Your task to perform on an android device: turn on notifications settings in the gmail app Image 0: 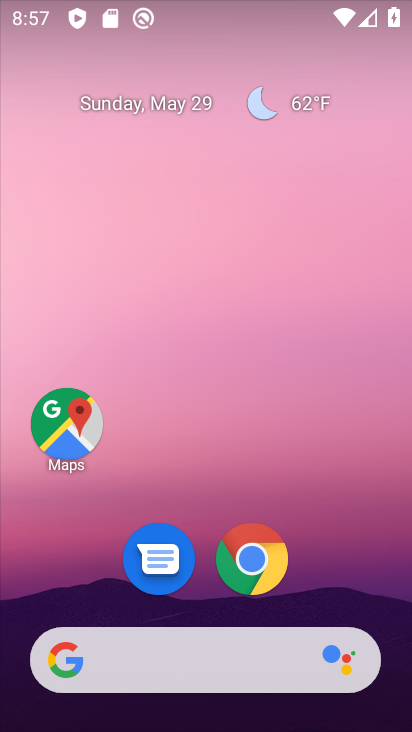
Step 0: drag from (328, 360) to (345, 133)
Your task to perform on an android device: turn on notifications settings in the gmail app Image 1: 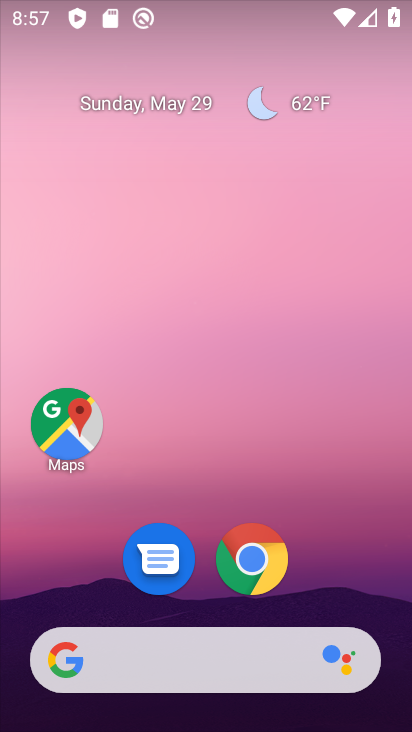
Step 1: drag from (308, 622) to (293, 195)
Your task to perform on an android device: turn on notifications settings in the gmail app Image 2: 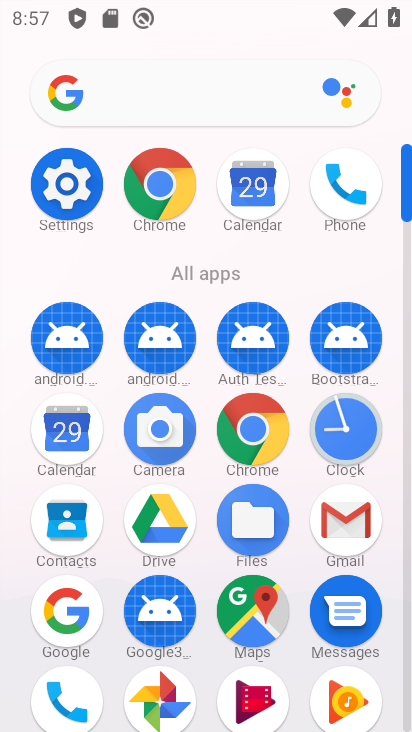
Step 2: click (336, 522)
Your task to perform on an android device: turn on notifications settings in the gmail app Image 3: 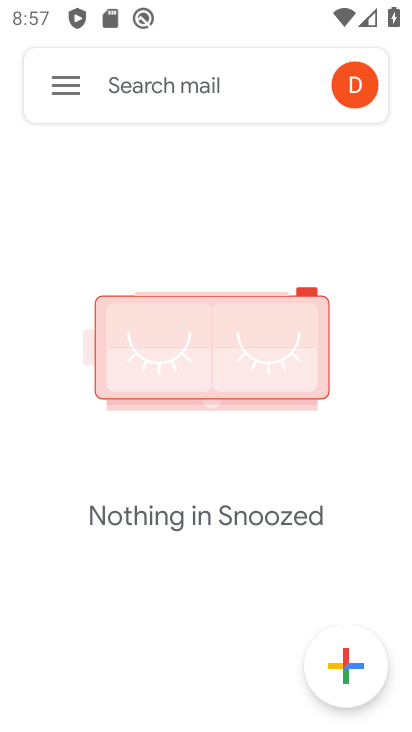
Step 3: click (62, 84)
Your task to perform on an android device: turn on notifications settings in the gmail app Image 4: 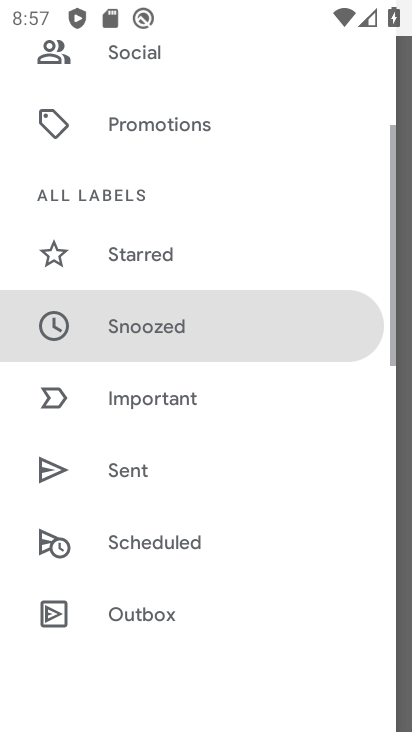
Step 4: drag from (189, 581) to (221, 174)
Your task to perform on an android device: turn on notifications settings in the gmail app Image 5: 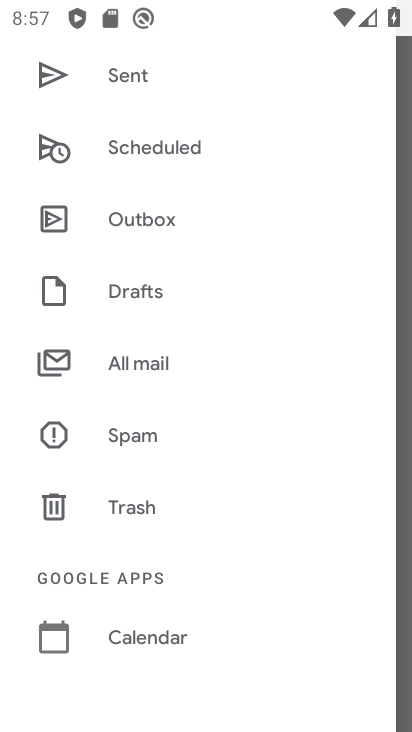
Step 5: drag from (199, 561) to (246, 253)
Your task to perform on an android device: turn on notifications settings in the gmail app Image 6: 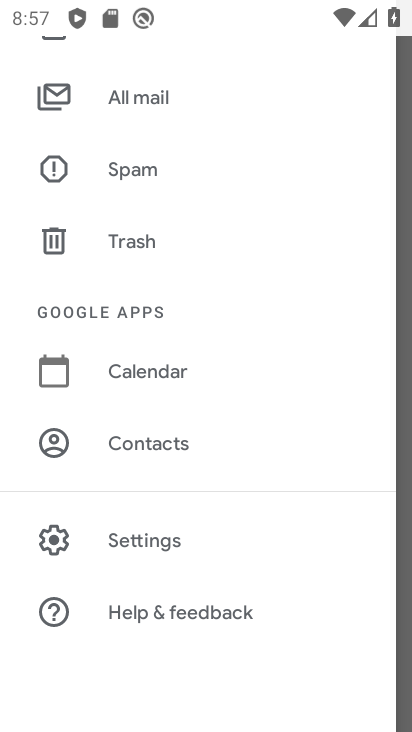
Step 6: click (180, 534)
Your task to perform on an android device: turn on notifications settings in the gmail app Image 7: 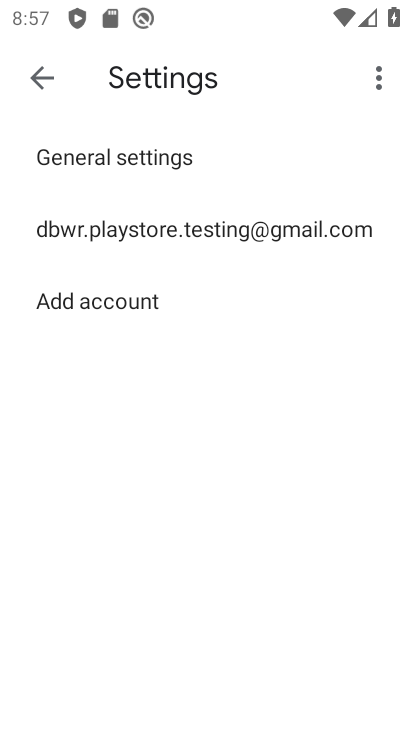
Step 7: click (148, 225)
Your task to perform on an android device: turn on notifications settings in the gmail app Image 8: 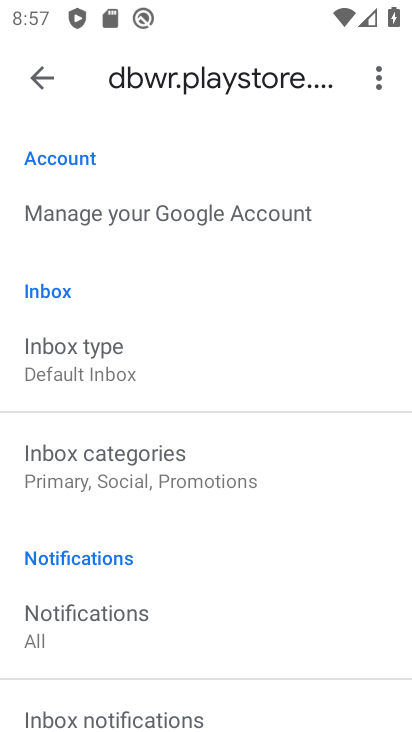
Step 8: click (156, 637)
Your task to perform on an android device: turn on notifications settings in the gmail app Image 9: 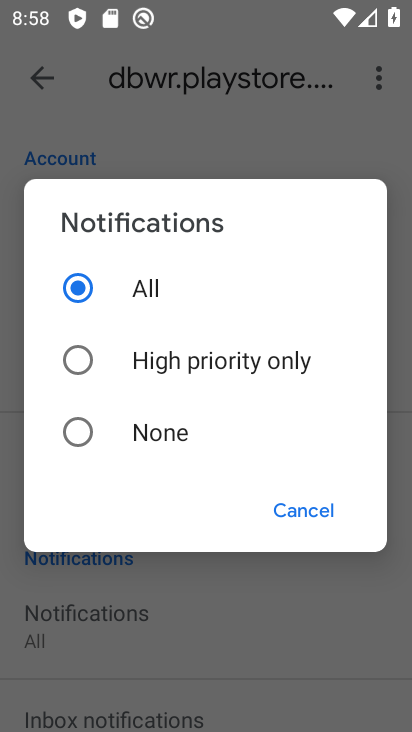
Step 9: task complete